Your task to perform on an android device: change keyboard looks Image 0: 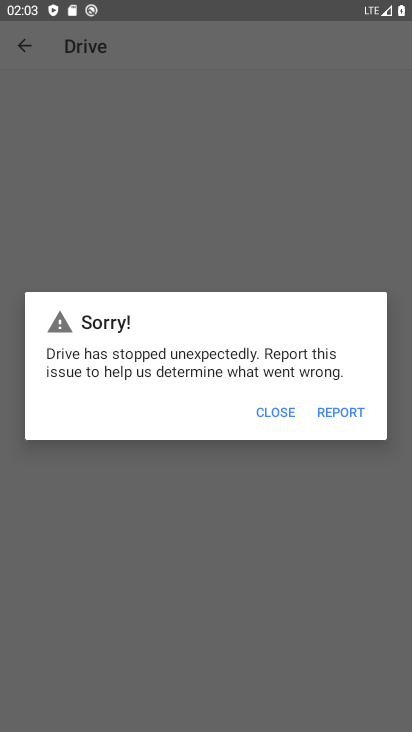
Step 0: press home button
Your task to perform on an android device: change keyboard looks Image 1: 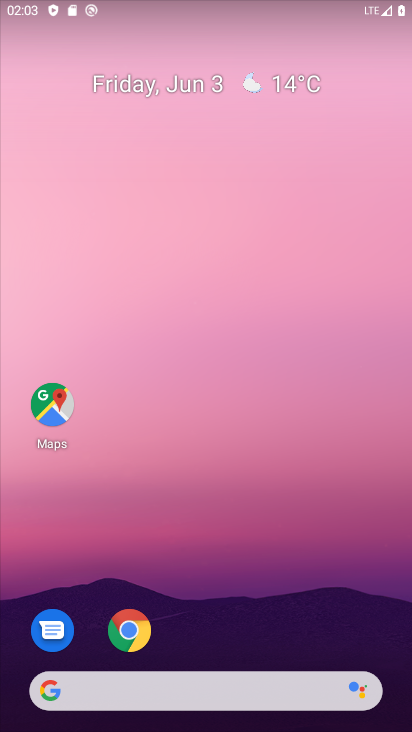
Step 1: drag from (383, 653) to (348, 163)
Your task to perform on an android device: change keyboard looks Image 2: 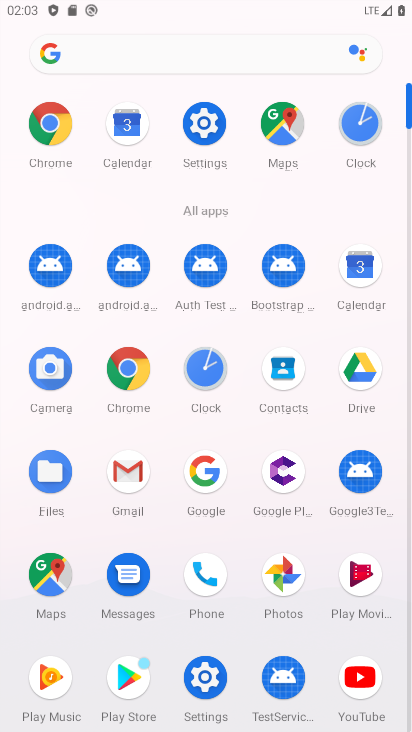
Step 2: click (210, 110)
Your task to perform on an android device: change keyboard looks Image 3: 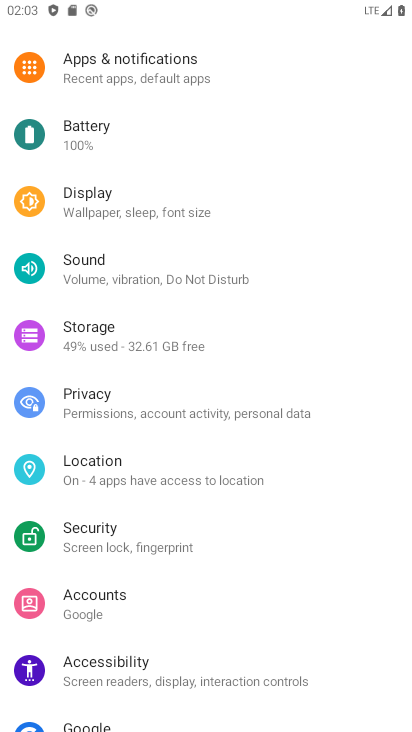
Step 3: drag from (241, 697) to (243, 355)
Your task to perform on an android device: change keyboard looks Image 4: 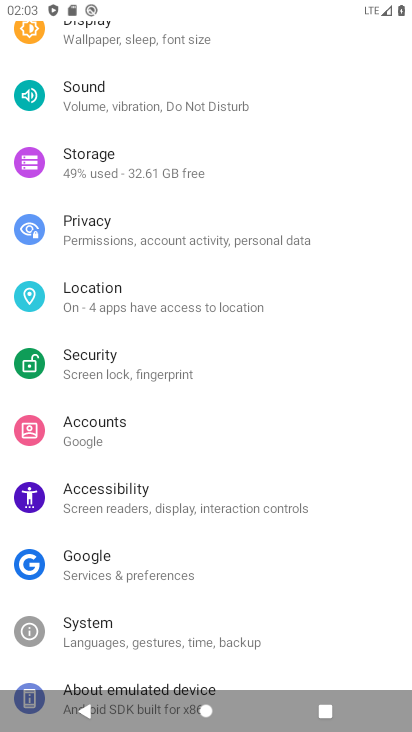
Step 4: click (113, 622)
Your task to perform on an android device: change keyboard looks Image 5: 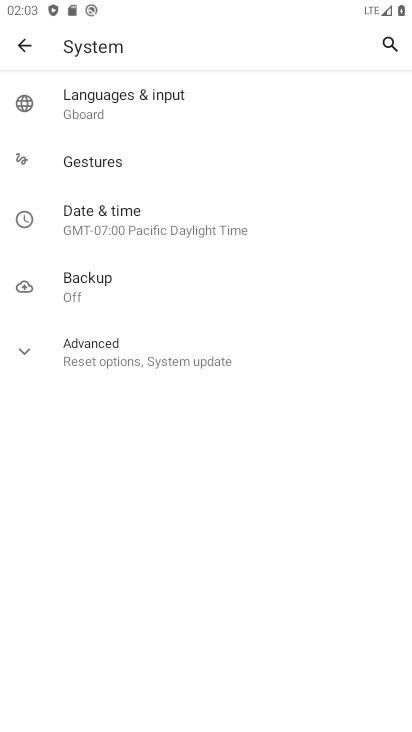
Step 5: click (107, 107)
Your task to perform on an android device: change keyboard looks Image 6: 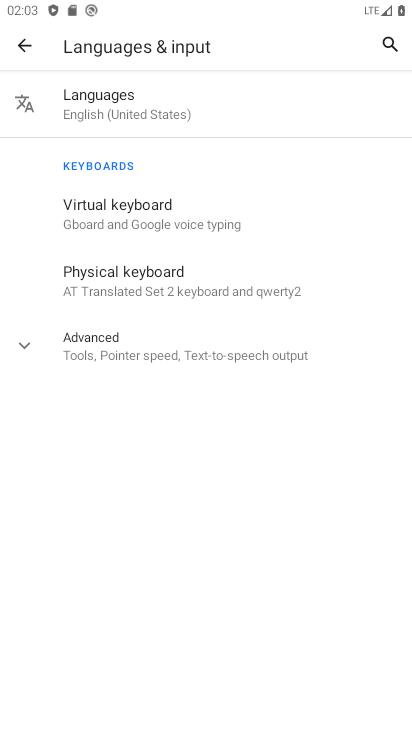
Step 6: click (103, 222)
Your task to perform on an android device: change keyboard looks Image 7: 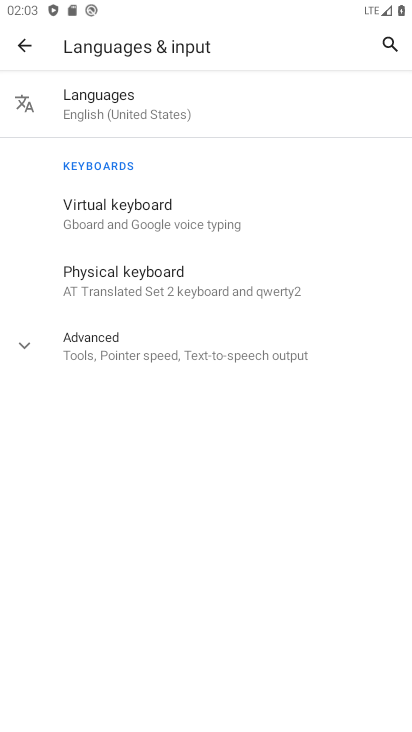
Step 7: click (100, 205)
Your task to perform on an android device: change keyboard looks Image 8: 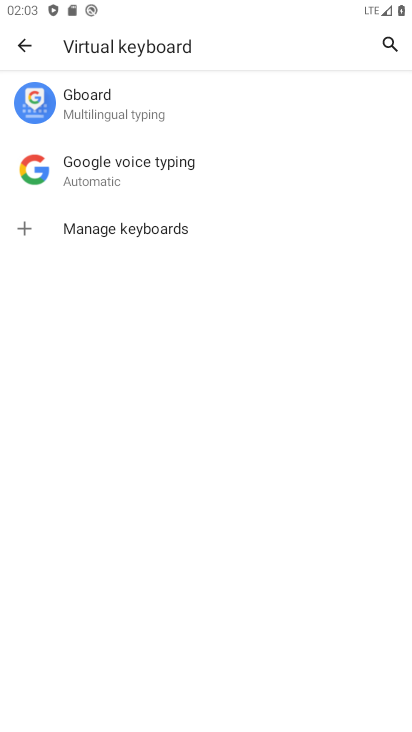
Step 8: click (97, 104)
Your task to perform on an android device: change keyboard looks Image 9: 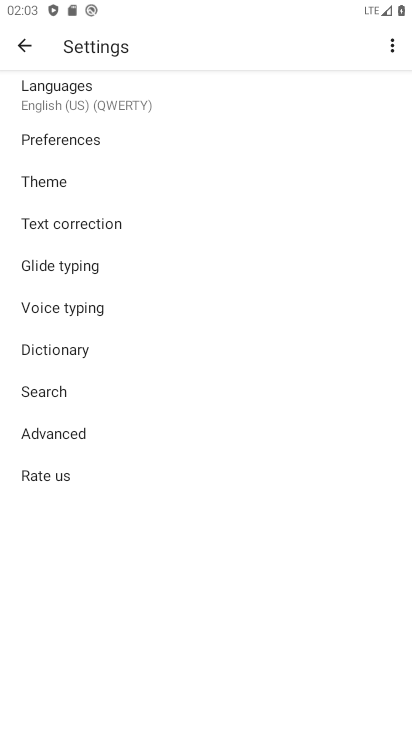
Step 9: click (53, 187)
Your task to perform on an android device: change keyboard looks Image 10: 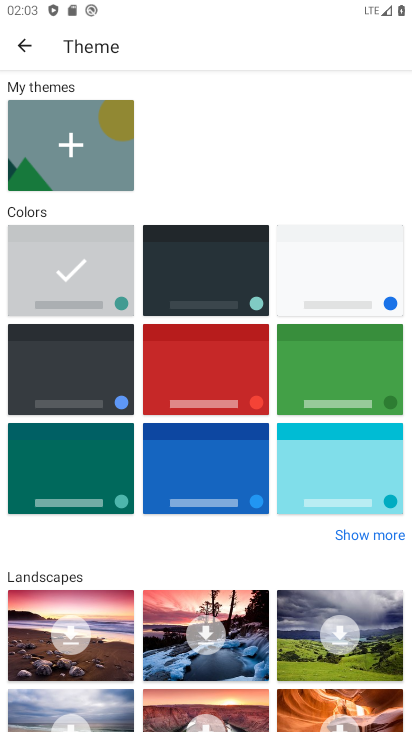
Step 10: click (331, 492)
Your task to perform on an android device: change keyboard looks Image 11: 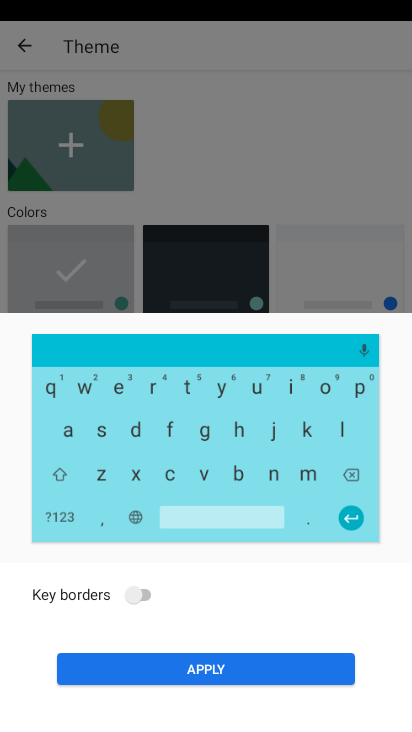
Step 11: click (151, 596)
Your task to perform on an android device: change keyboard looks Image 12: 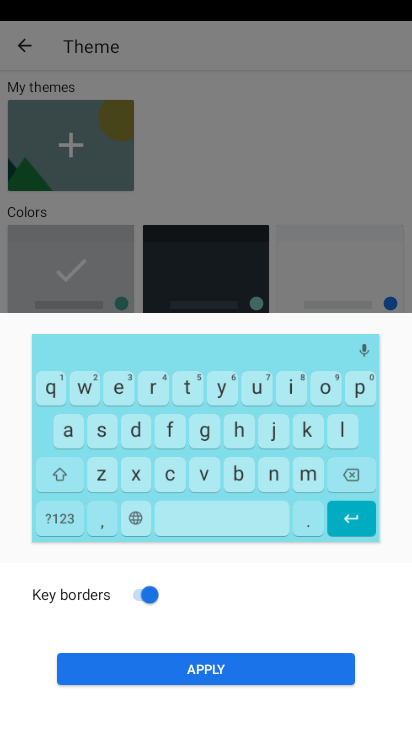
Step 12: click (239, 676)
Your task to perform on an android device: change keyboard looks Image 13: 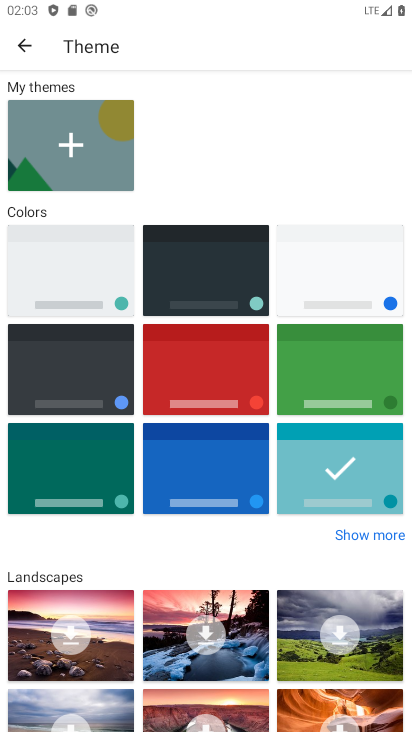
Step 13: task complete